Your task to perform on an android device: find which apps use the phone's location Image 0: 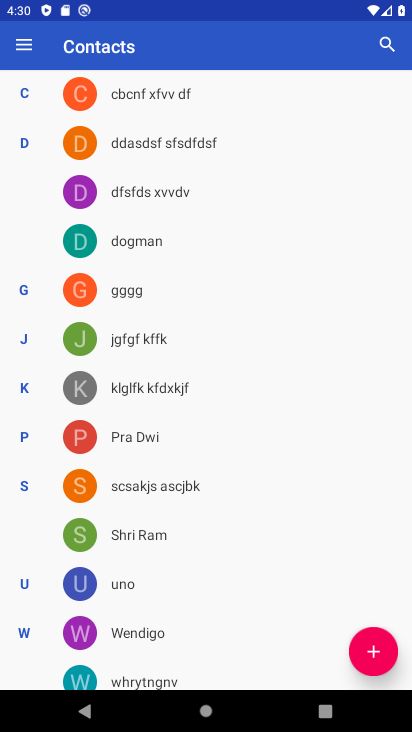
Step 0: press back button
Your task to perform on an android device: find which apps use the phone's location Image 1: 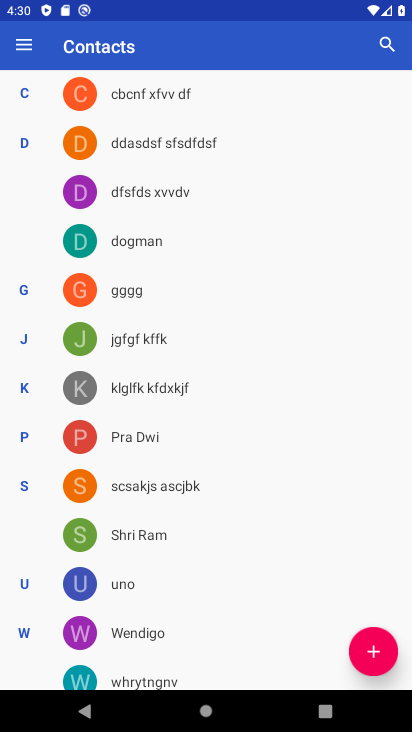
Step 1: press back button
Your task to perform on an android device: find which apps use the phone's location Image 2: 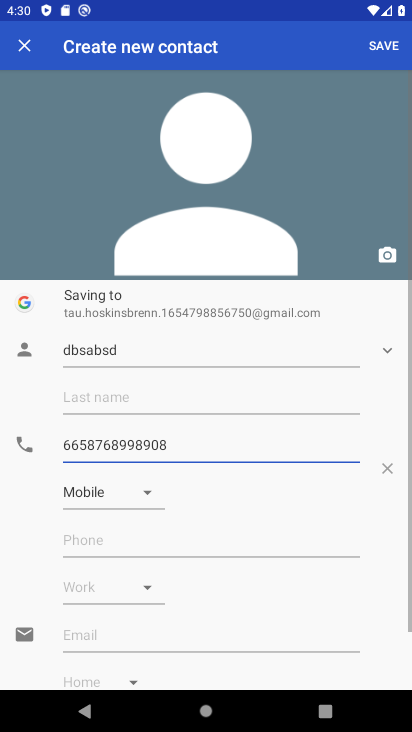
Step 2: press back button
Your task to perform on an android device: find which apps use the phone's location Image 3: 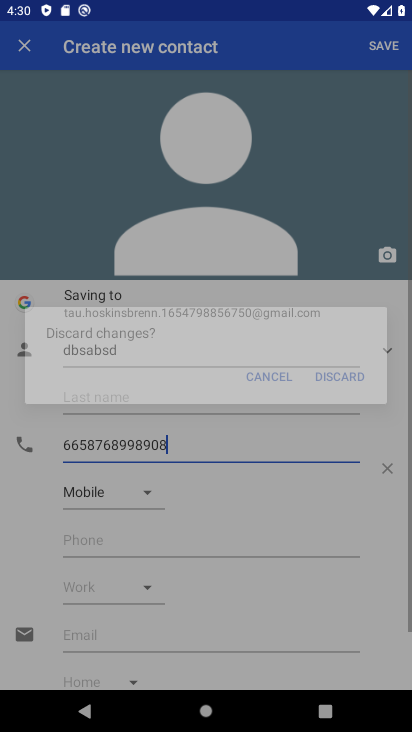
Step 3: press back button
Your task to perform on an android device: find which apps use the phone's location Image 4: 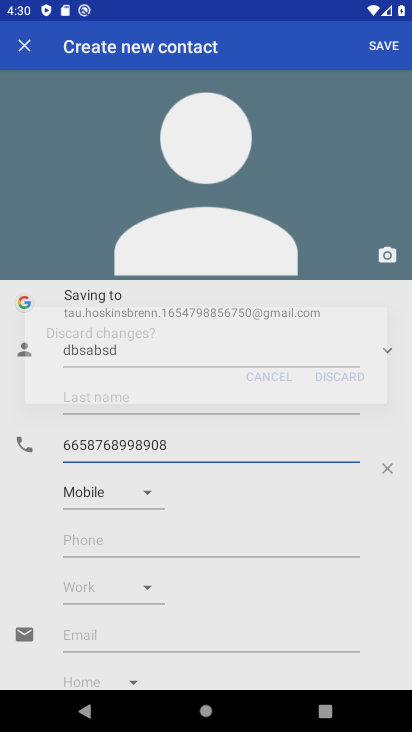
Step 4: press home button
Your task to perform on an android device: find which apps use the phone's location Image 5: 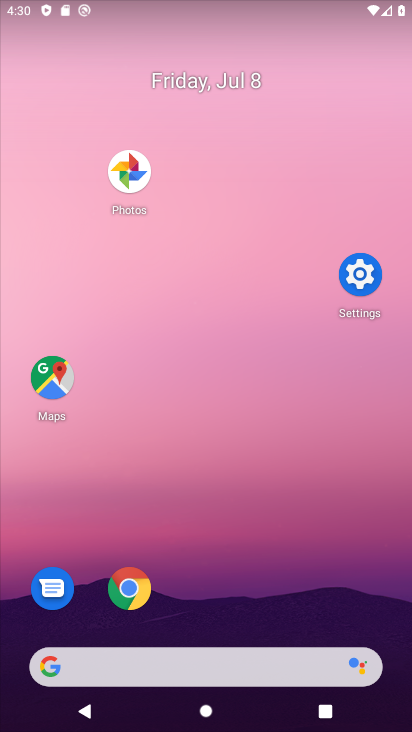
Step 5: drag from (259, 715) to (362, 112)
Your task to perform on an android device: find which apps use the phone's location Image 6: 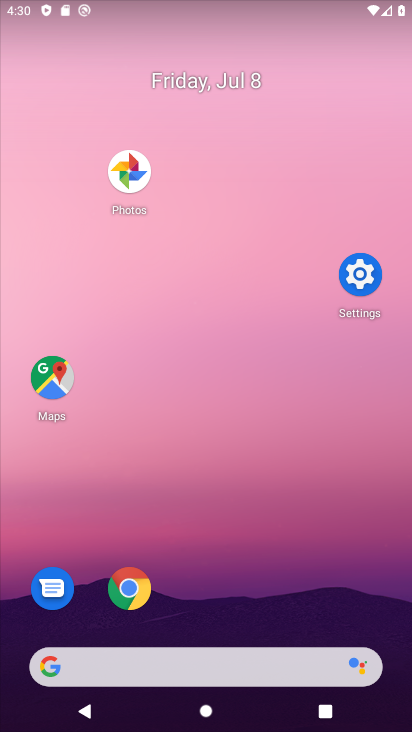
Step 6: drag from (160, 303) to (132, 54)
Your task to perform on an android device: find which apps use the phone's location Image 7: 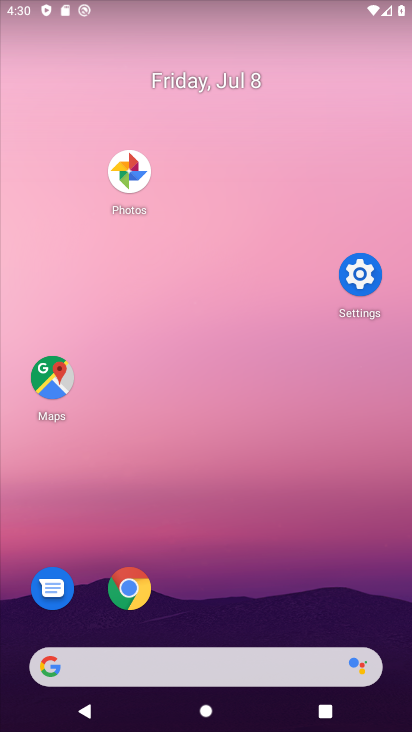
Step 7: drag from (283, 539) to (386, 191)
Your task to perform on an android device: find which apps use the phone's location Image 8: 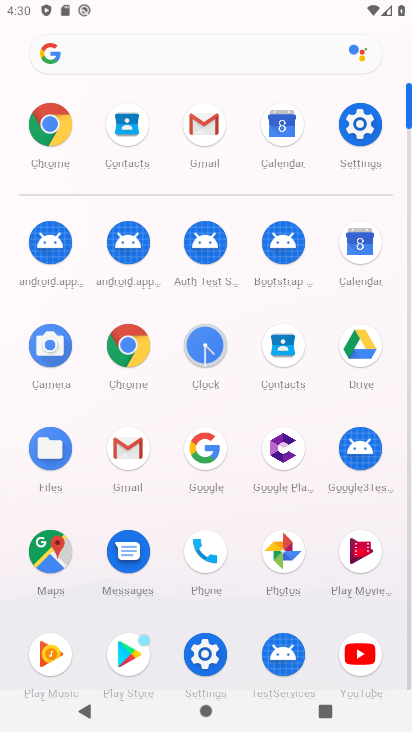
Step 8: click (202, 549)
Your task to perform on an android device: find which apps use the phone's location Image 9: 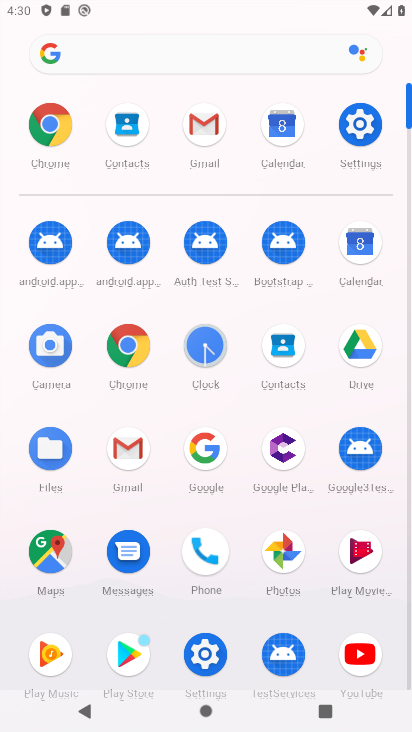
Step 9: click (201, 551)
Your task to perform on an android device: find which apps use the phone's location Image 10: 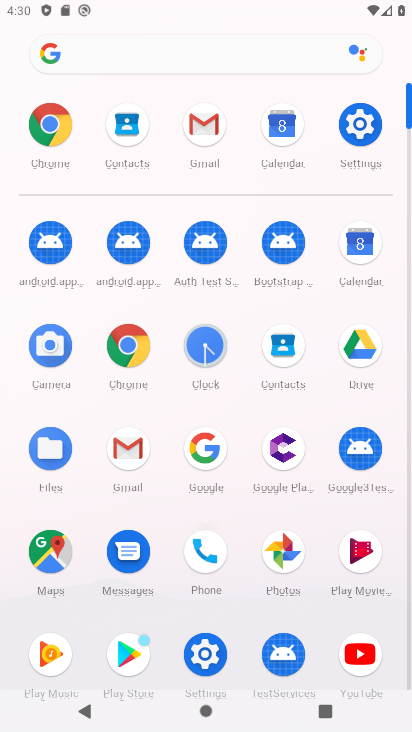
Step 10: click (200, 552)
Your task to perform on an android device: find which apps use the phone's location Image 11: 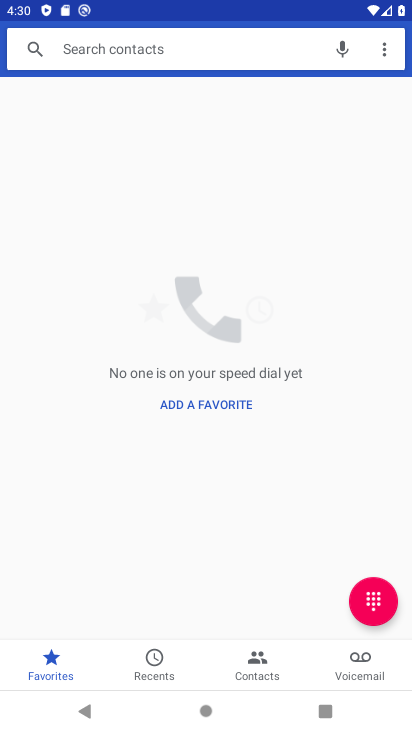
Step 11: press back button
Your task to perform on an android device: find which apps use the phone's location Image 12: 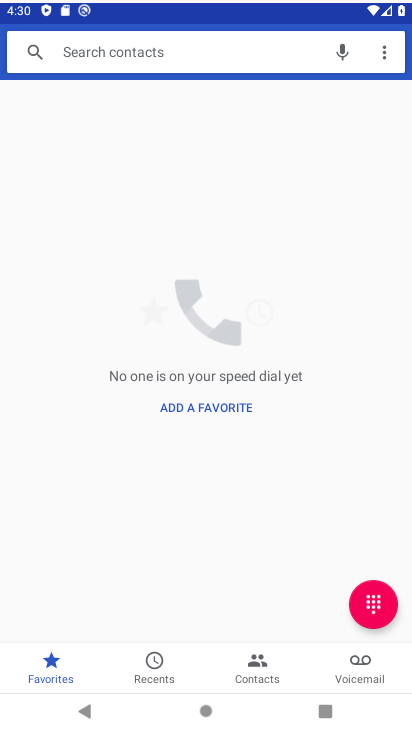
Step 12: press back button
Your task to perform on an android device: find which apps use the phone's location Image 13: 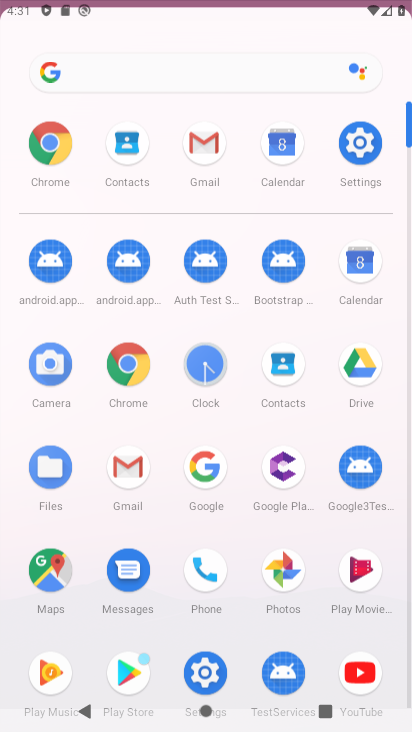
Step 13: press back button
Your task to perform on an android device: find which apps use the phone's location Image 14: 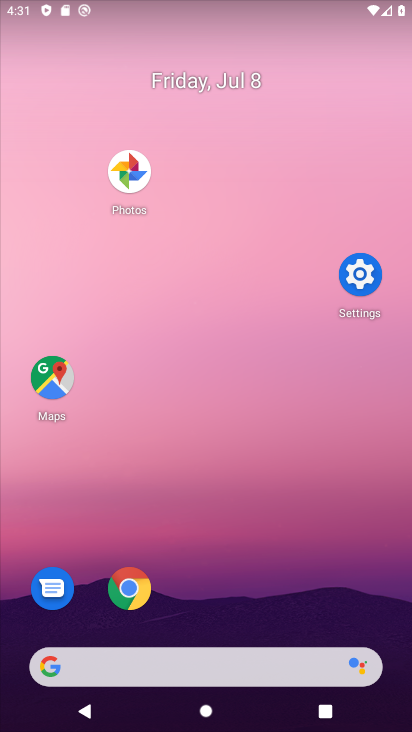
Step 14: drag from (237, 538) to (186, 186)
Your task to perform on an android device: find which apps use the phone's location Image 15: 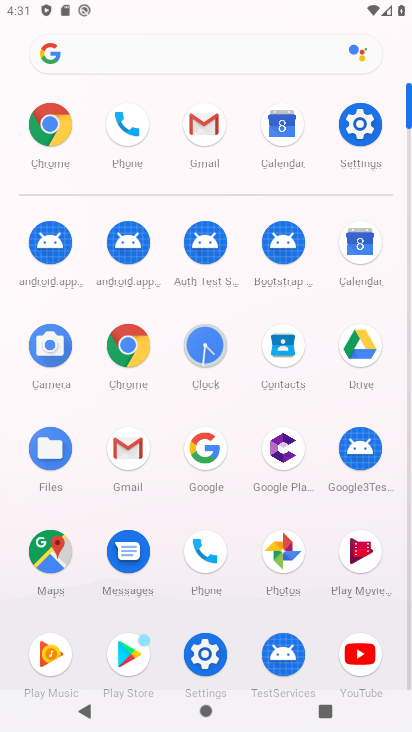
Step 15: click (345, 133)
Your task to perform on an android device: find which apps use the phone's location Image 16: 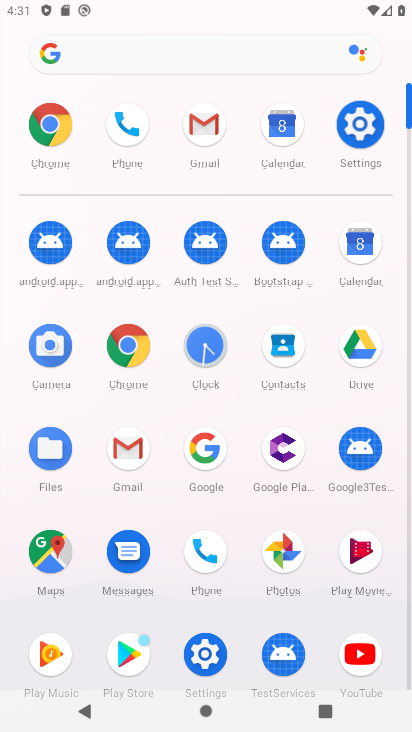
Step 16: click (348, 134)
Your task to perform on an android device: find which apps use the phone's location Image 17: 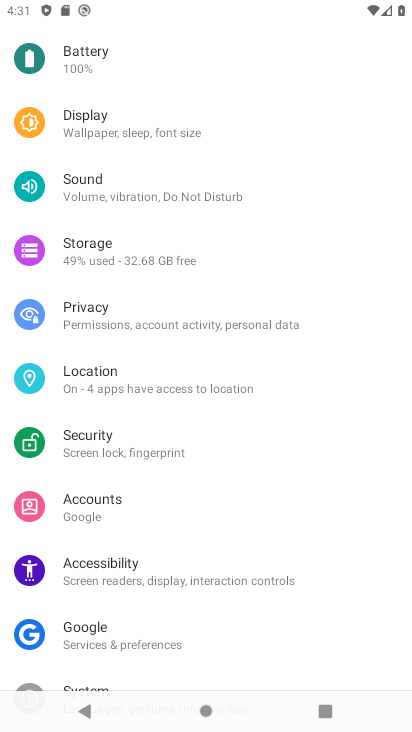
Step 17: click (98, 391)
Your task to perform on an android device: find which apps use the phone's location Image 18: 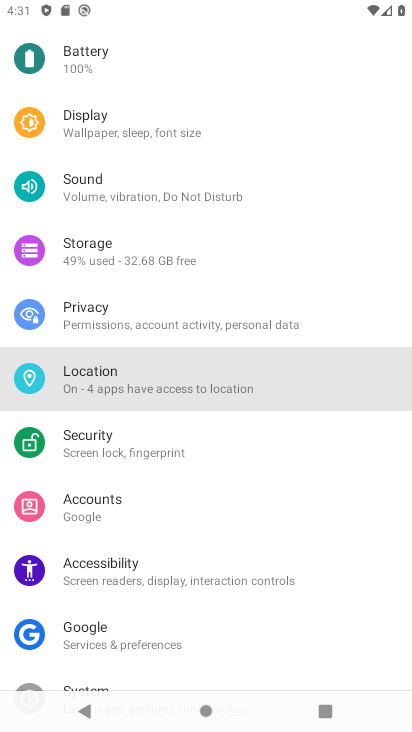
Step 18: click (104, 385)
Your task to perform on an android device: find which apps use the phone's location Image 19: 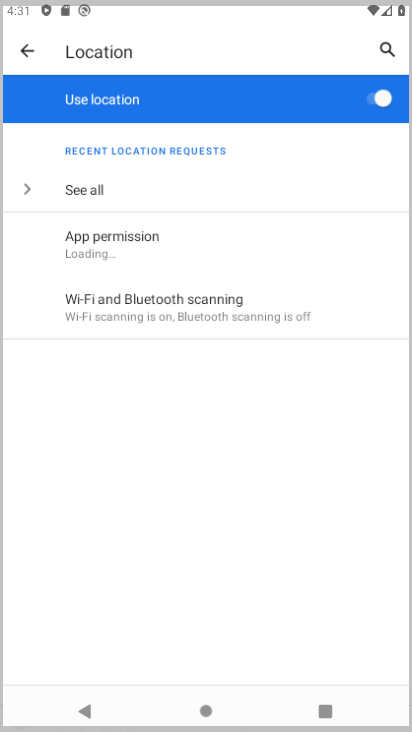
Step 19: click (104, 386)
Your task to perform on an android device: find which apps use the phone's location Image 20: 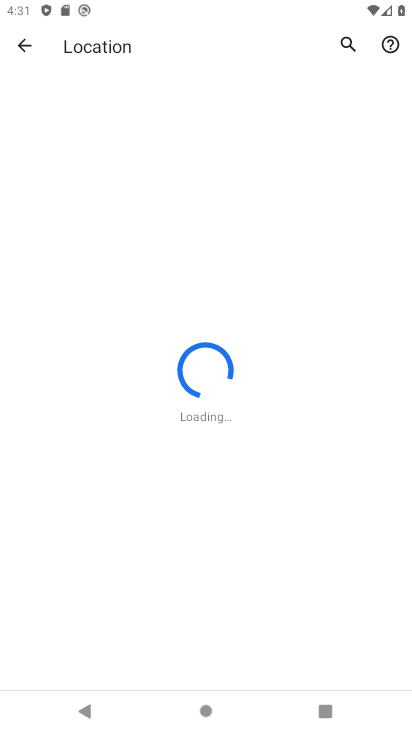
Step 20: click (25, 46)
Your task to perform on an android device: find which apps use the phone's location Image 21: 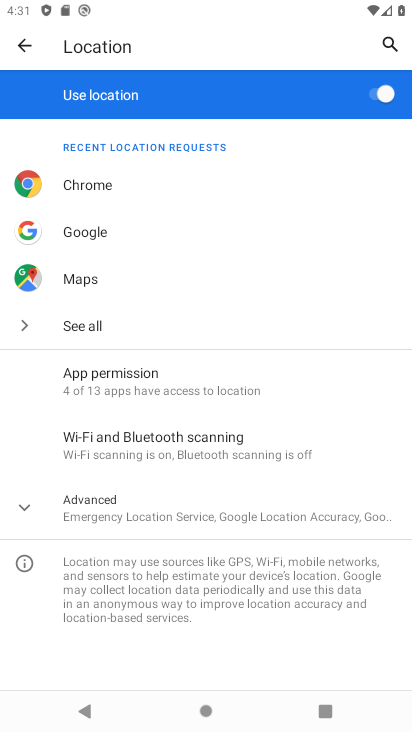
Step 21: click (112, 386)
Your task to perform on an android device: find which apps use the phone's location Image 22: 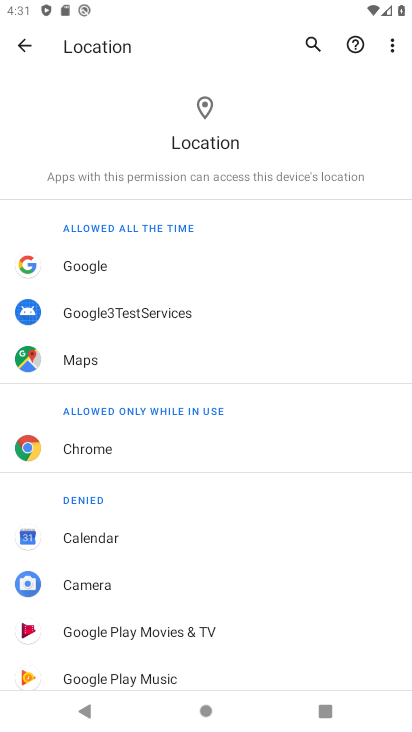
Step 22: task complete